Your task to perform on an android device: turn on notifications settings in the gmail app Image 0: 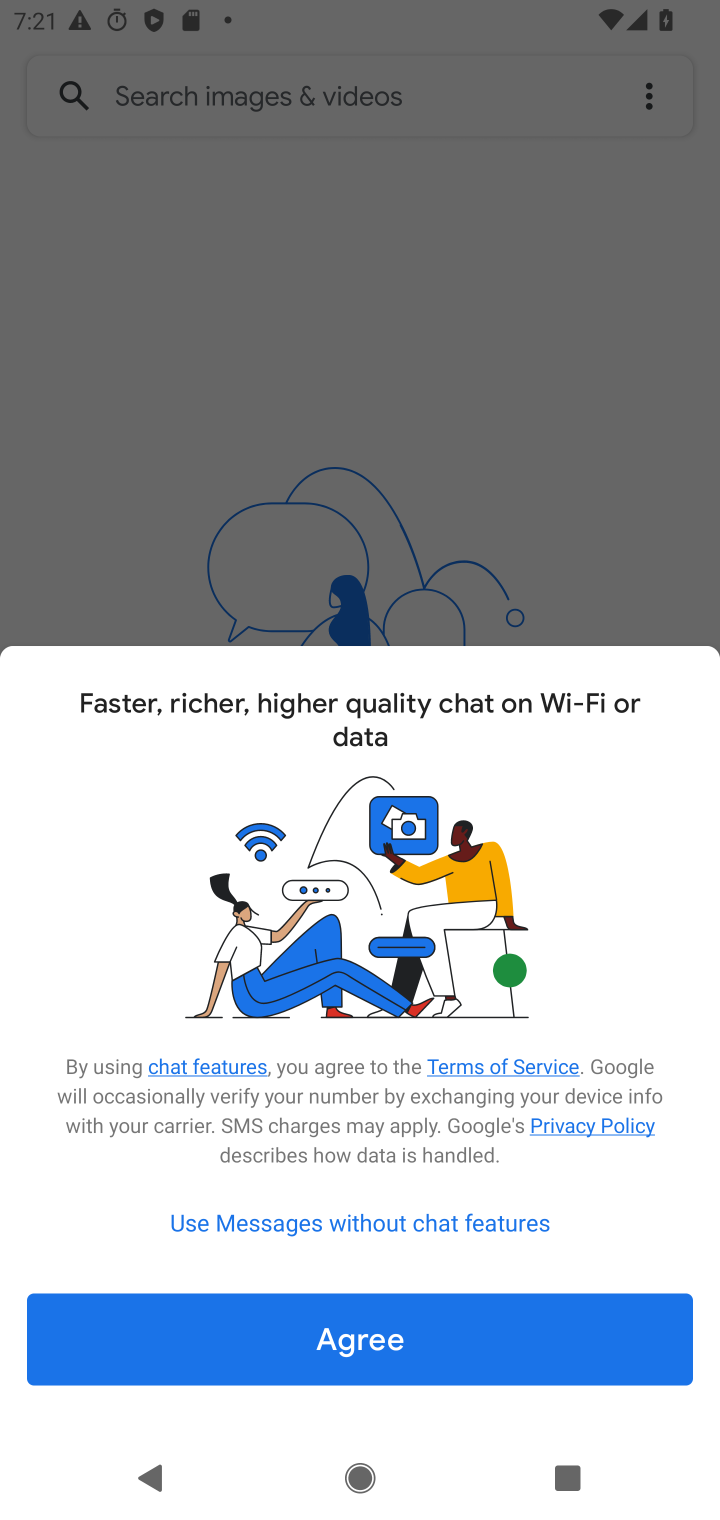
Step 0: press home button
Your task to perform on an android device: turn on notifications settings in the gmail app Image 1: 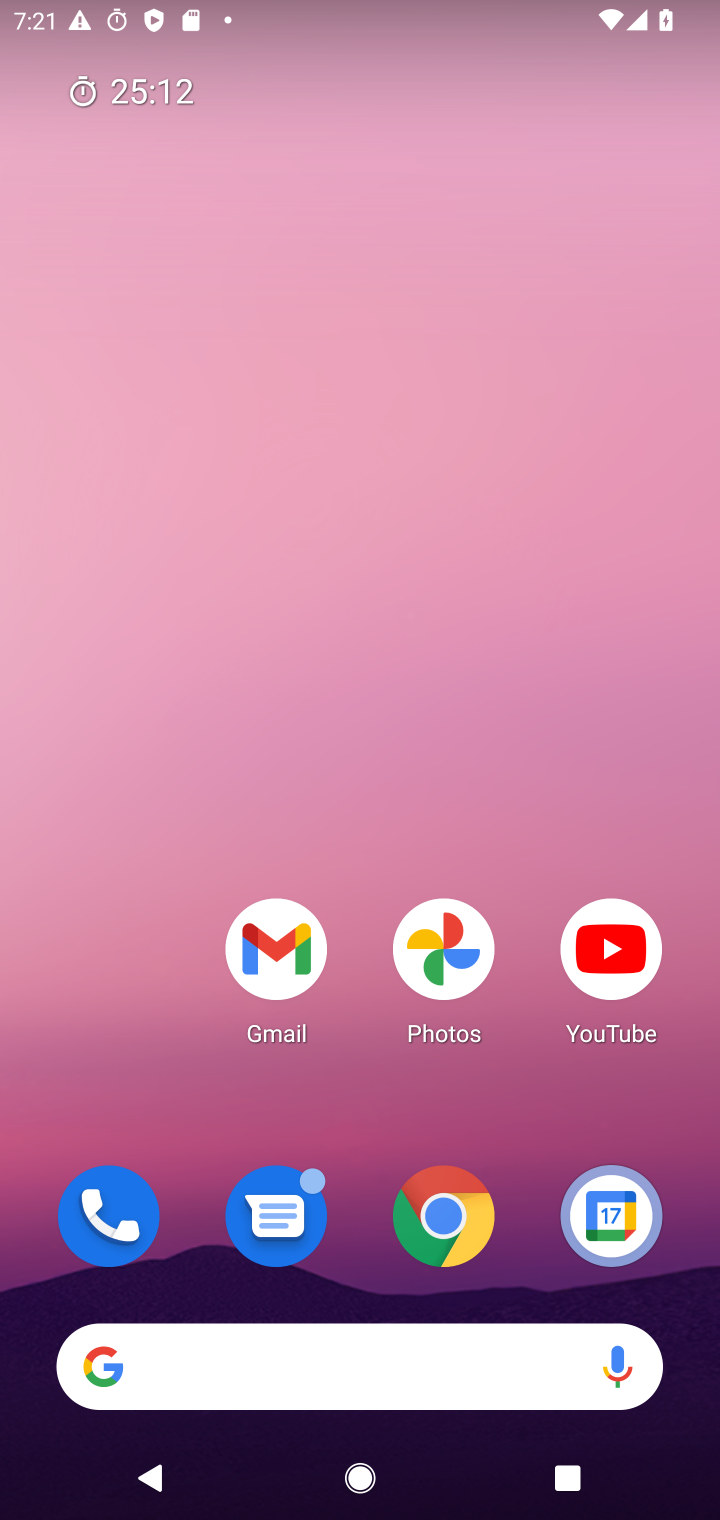
Step 1: click (287, 956)
Your task to perform on an android device: turn on notifications settings in the gmail app Image 2: 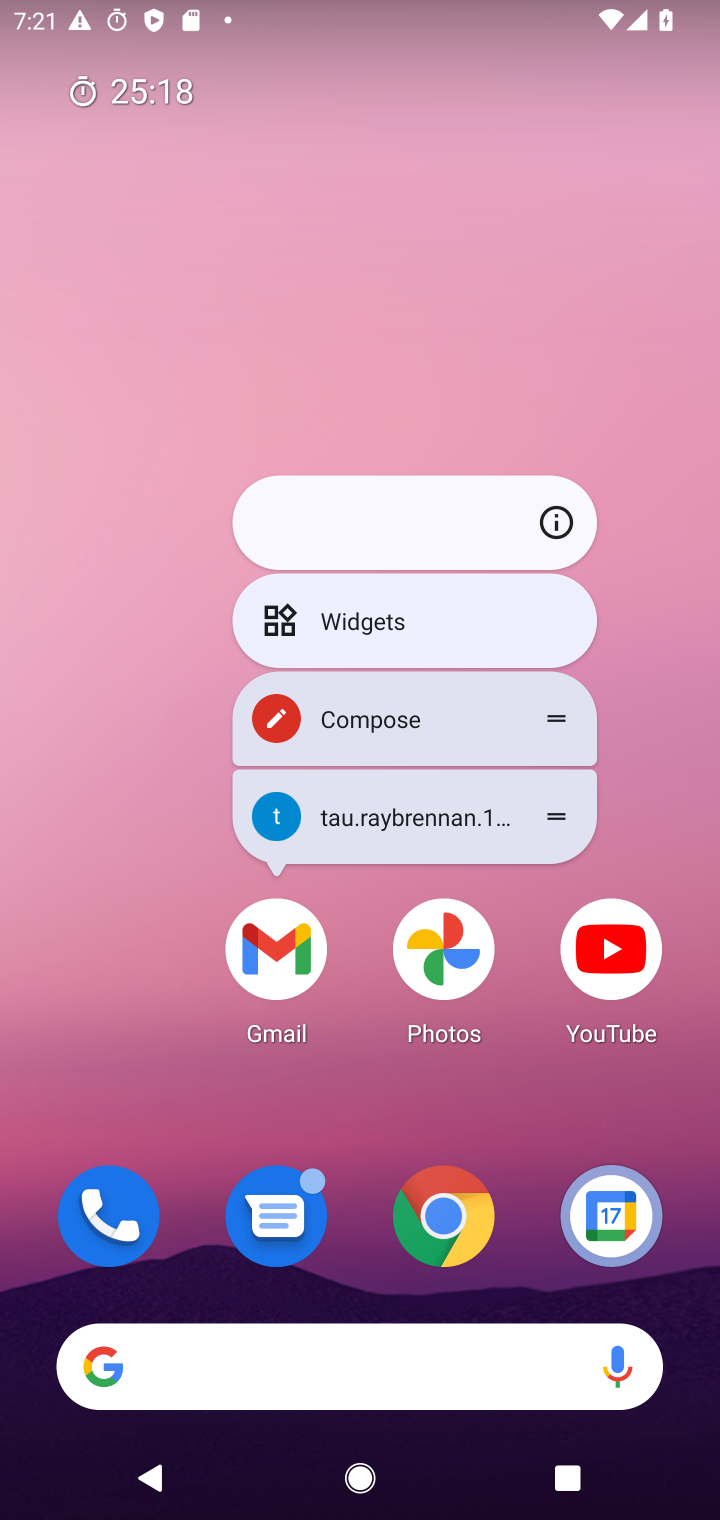
Step 2: click (562, 529)
Your task to perform on an android device: turn on notifications settings in the gmail app Image 3: 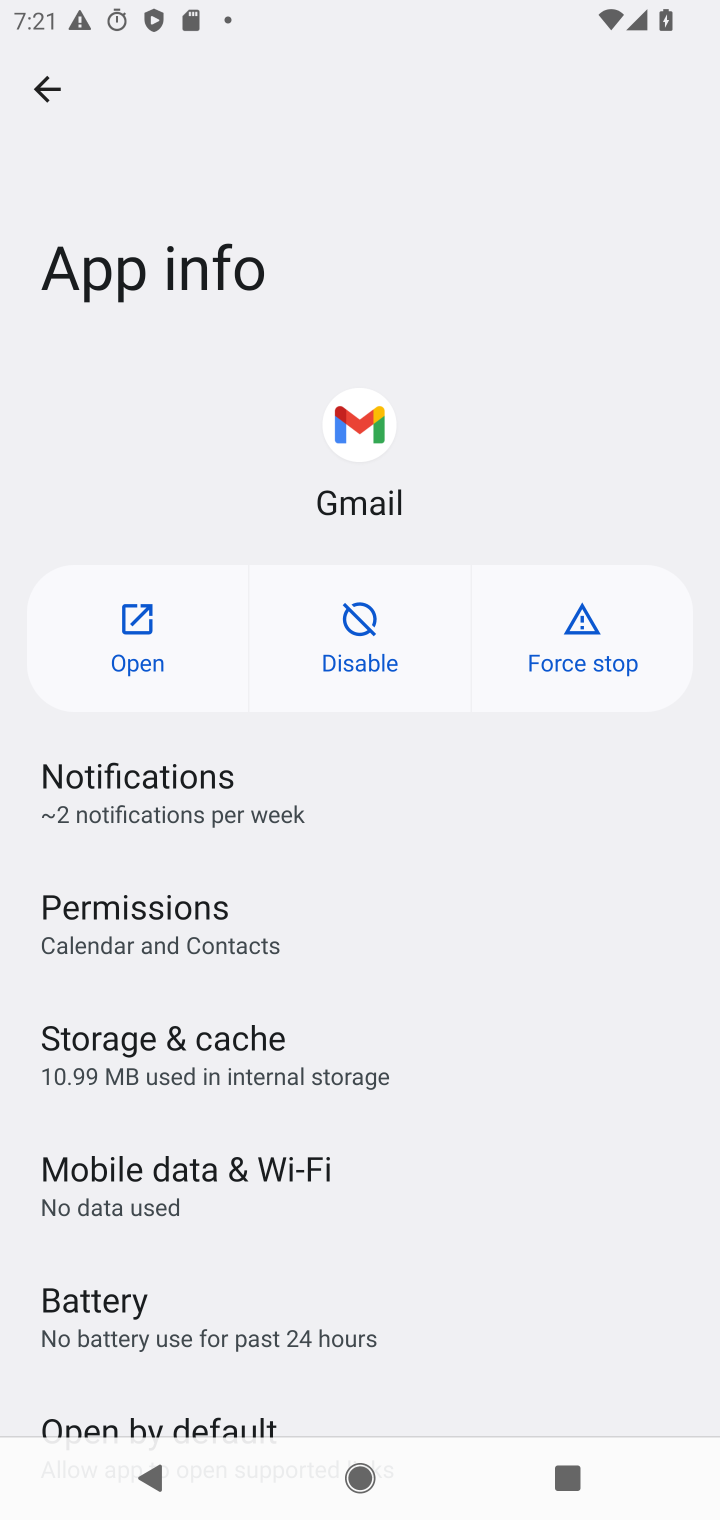
Step 3: click (251, 796)
Your task to perform on an android device: turn on notifications settings in the gmail app Image 4: 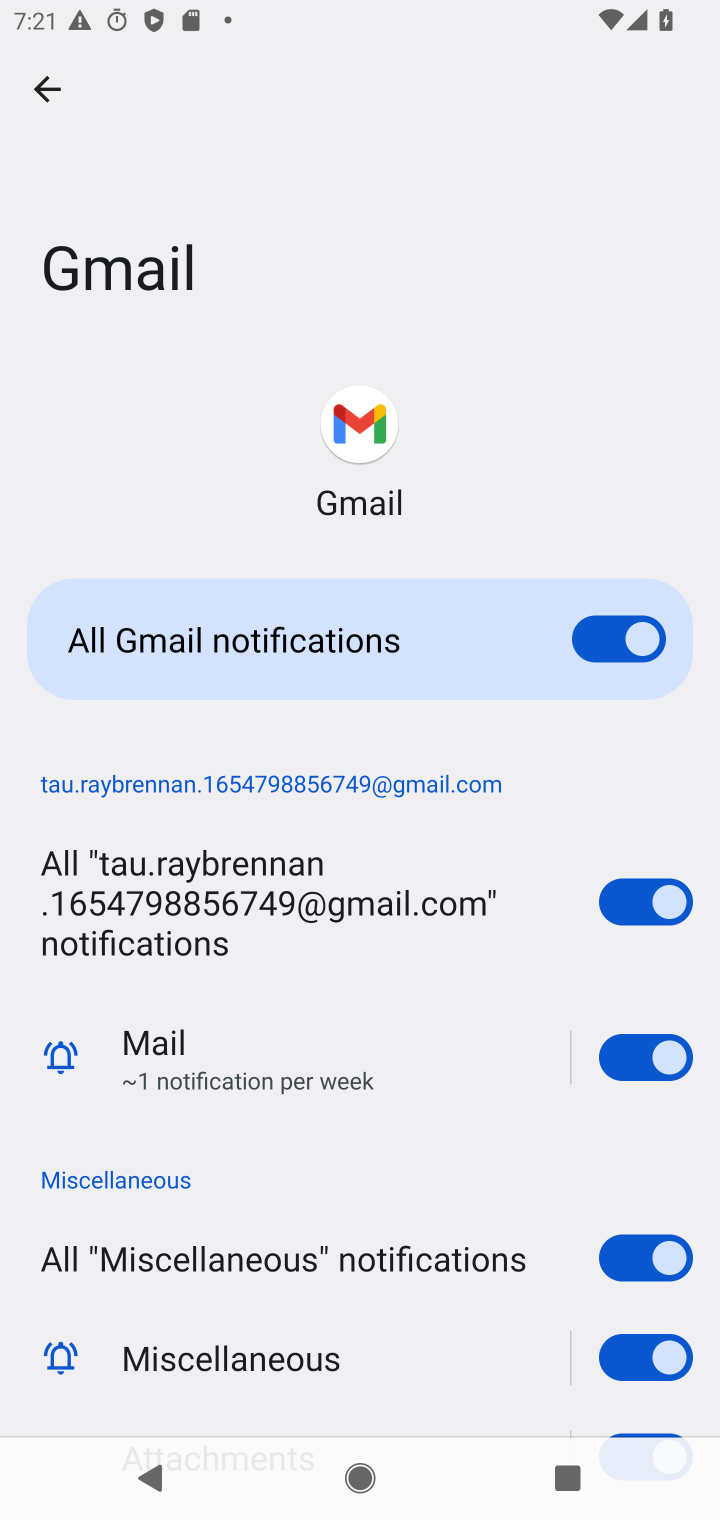
Step 4: task complete